Your task to perform on an android device: open app "PlayWell" (install if not already installed) Image 0: 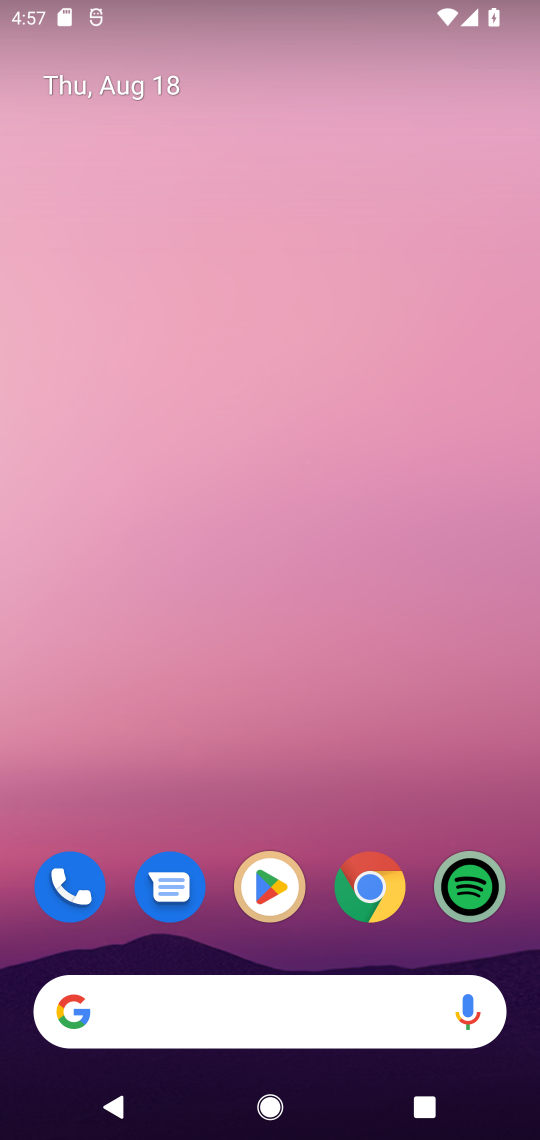
Step 0: drag from (308, 958) to (315, 18)
Your task to perform on an android device: open app "PlayWell" (install if not already installed) Image 1: 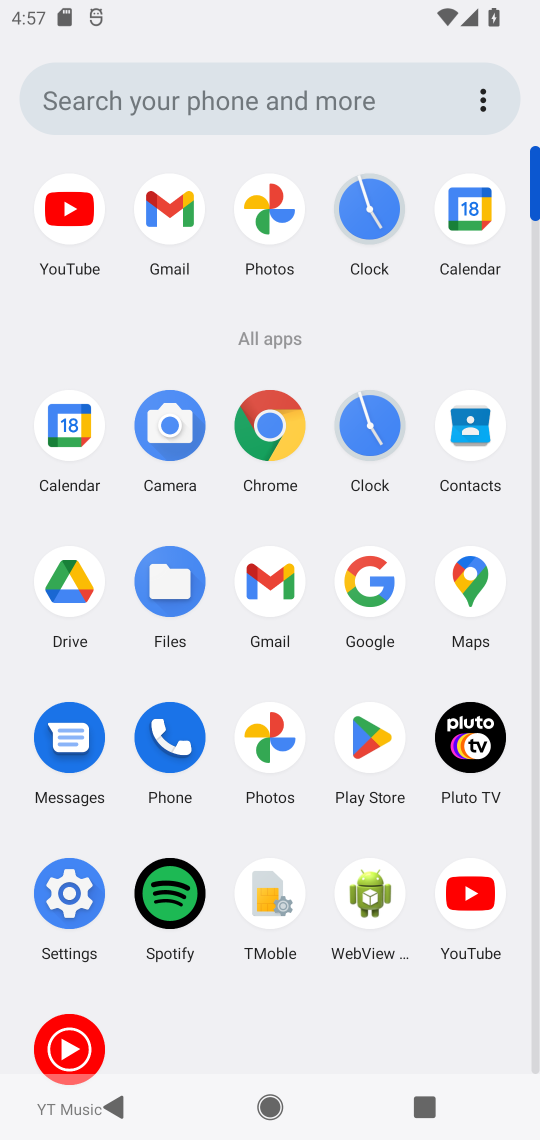
Step 1: click (368, 728)
Your task to perform on an android device: open app "PlayWell" (install if not already installed) Image 2: 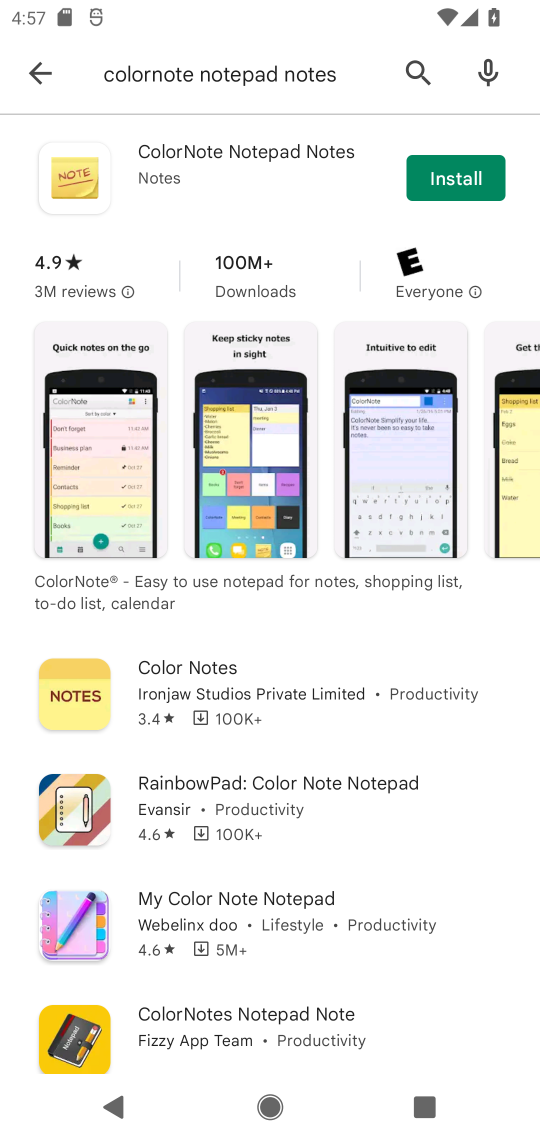
Step 2: click (409, 65)
Your task to perform on an android device: open app "PlayWell" (install if not already installed) Image 3: 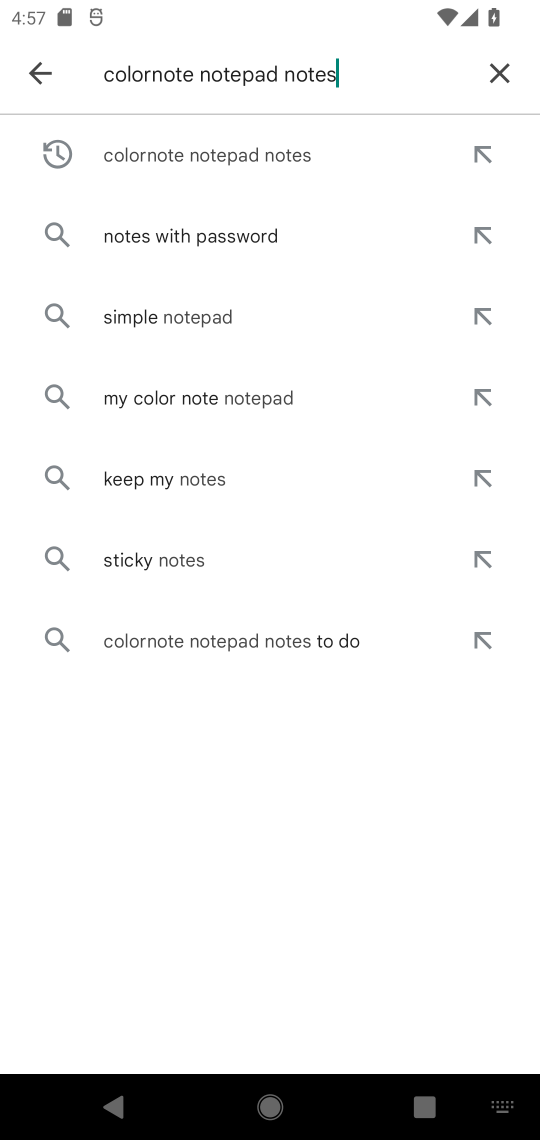
Step 3: click (498, 68)
Your task to perform on an android device: open app "PlayWell" (install if not already installed) Image 4: 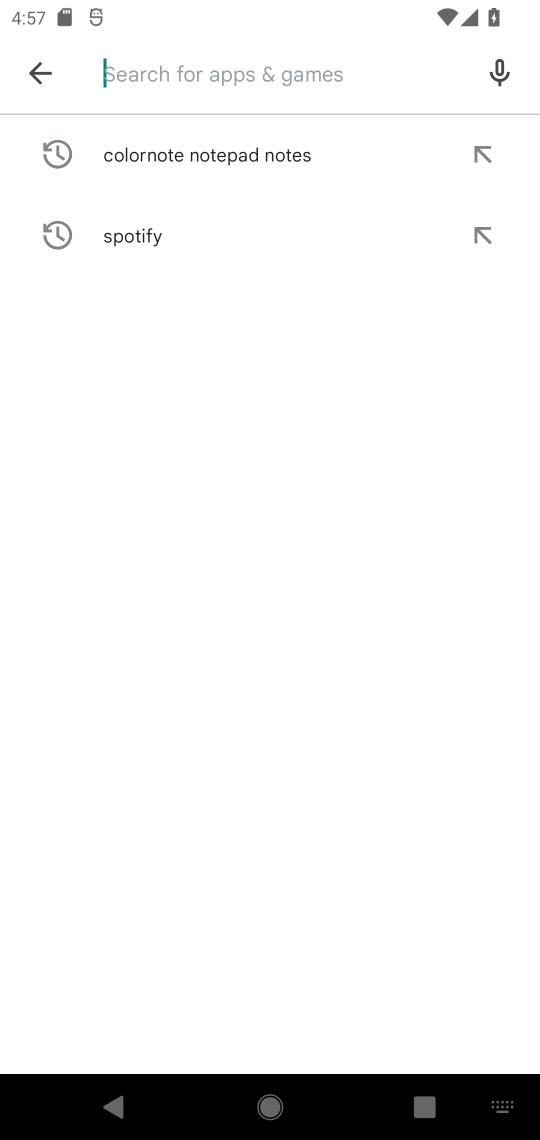
Step 4: type "PlayWell"
Your task to perform on an android device: open app "PlayWell" (install if not already installed) Image 5: 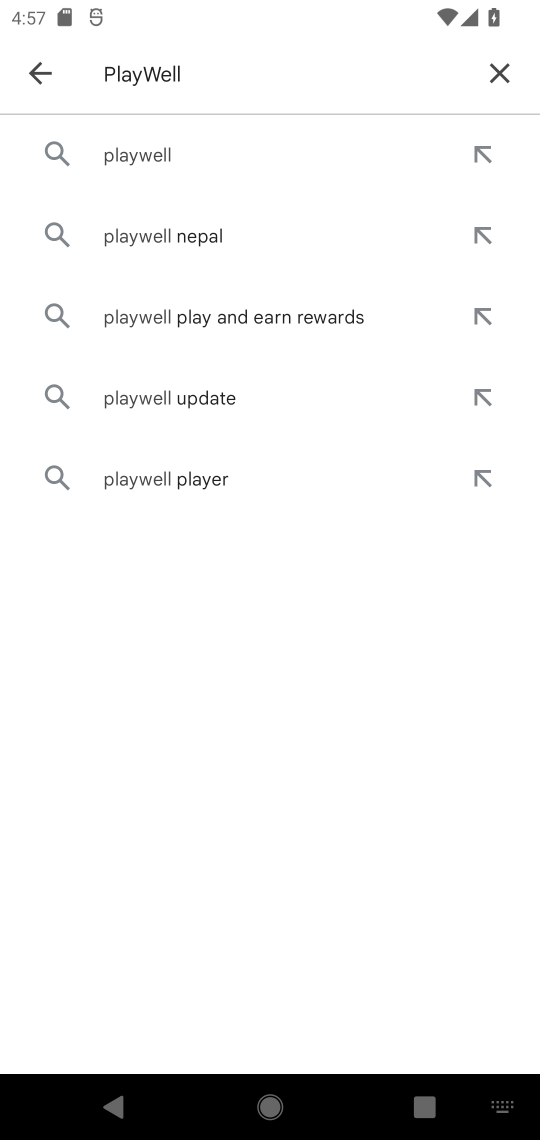
Step 5: click (159, 158)
Your task to perform on an android device: open app "PlayWell" (install if not already installed) Image 6: 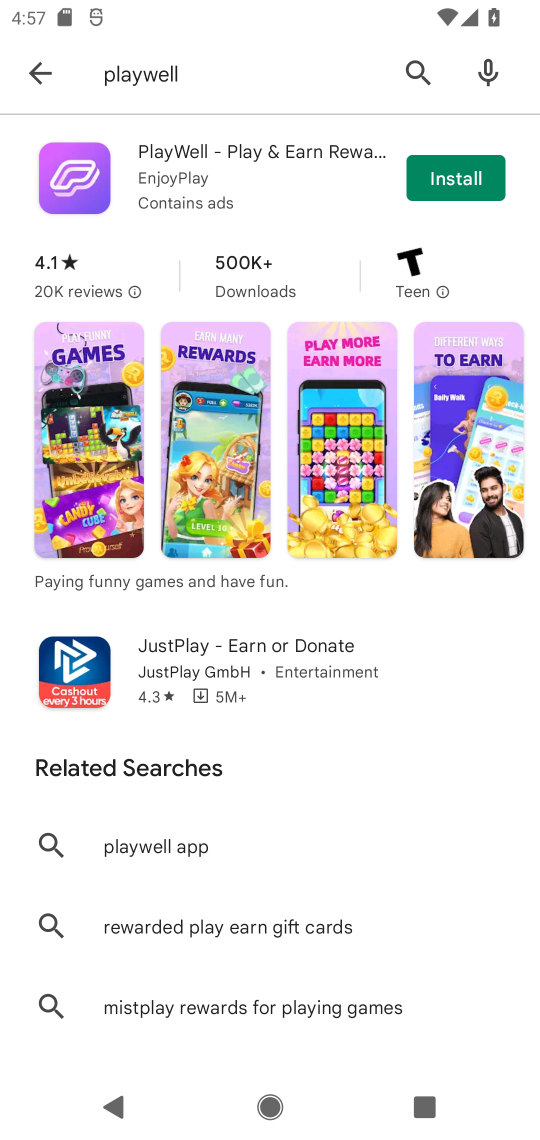
Step 6: click (431, 177)
Your task to perform on an android device: open app "PlayWell" (install if not already installed) Image 7: 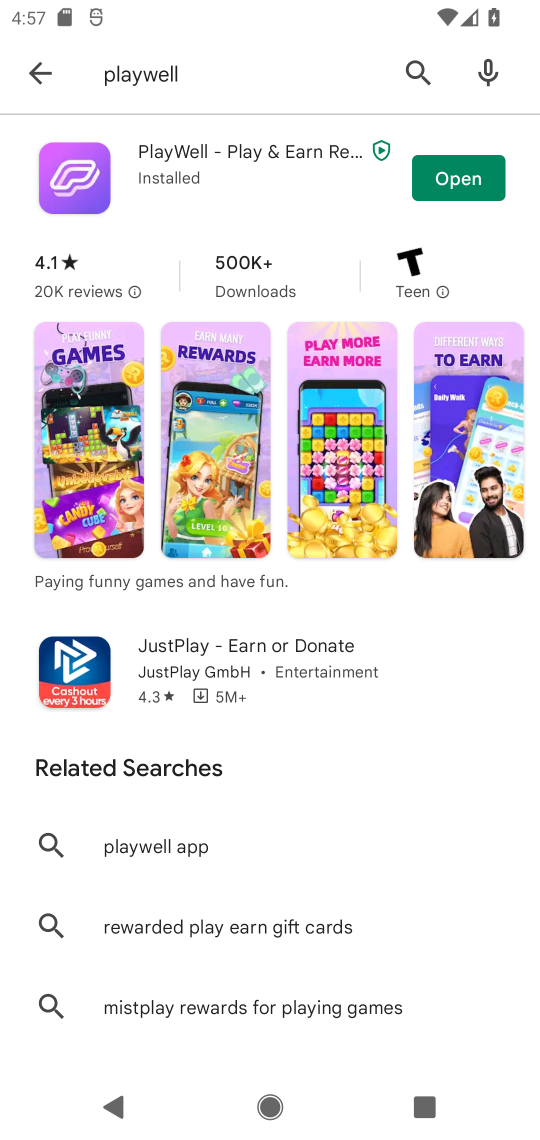
Step 7: click (463, 177)
Your task to perform on an android device: open app "PlayWell" (install if not already installed) Image 8: 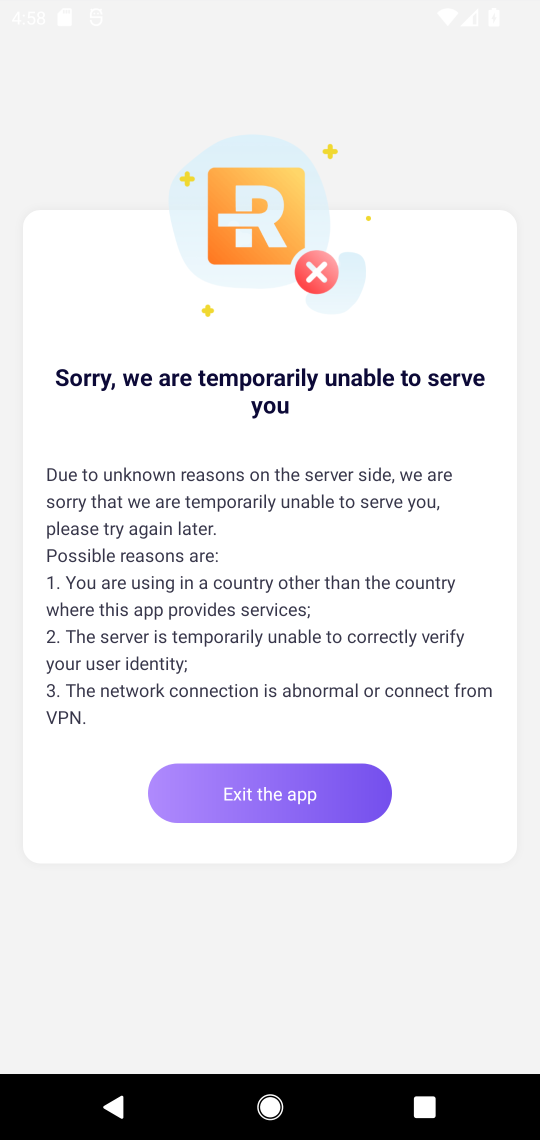
Step 8: task complete